Your task to perform on an android device: add a contact Image 0: 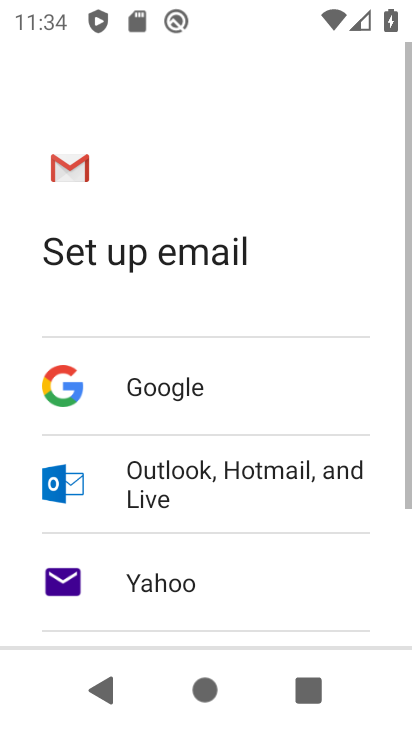
Step 0: press home button
Your task to perform on an android device: add a contact Image 1: 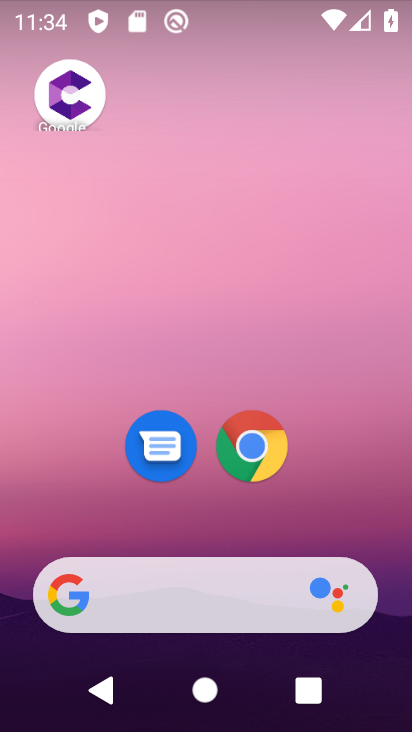
Step 1: drag from (308, 543) to (298, 126)
Your task to perform on an android device: add a contact Image 2: 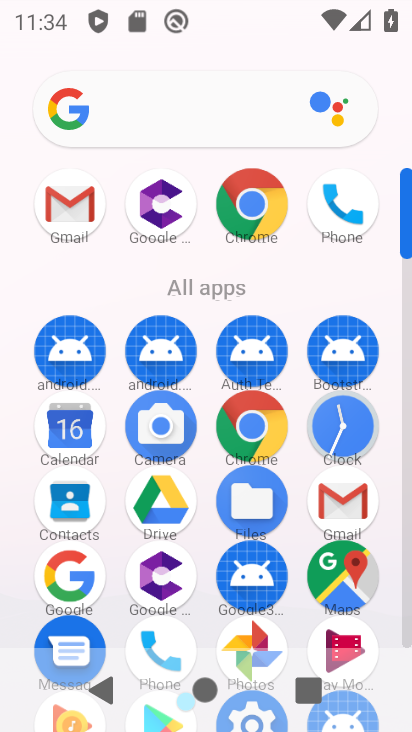
Step 2: drag from (230, 584) to (227, 287)
Your task to perform on an android device: add a contact Image 3: 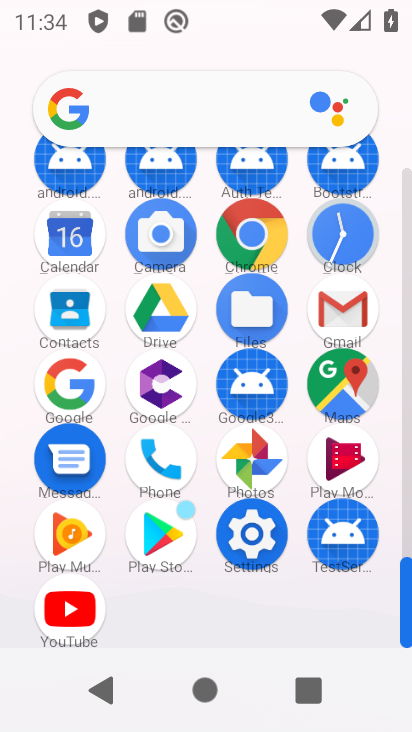
Step 3: click (150, 452)
Your task to perform on an android device: add a contact Image 4: 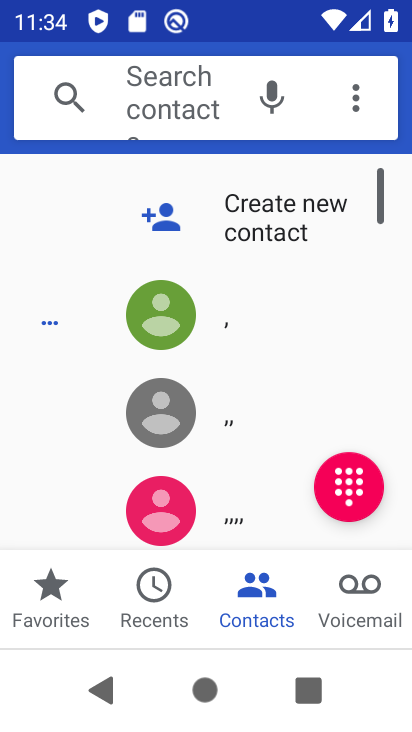
Step 4: click (253, 212)
Your task to perform on an android device: add a contact Image 5: 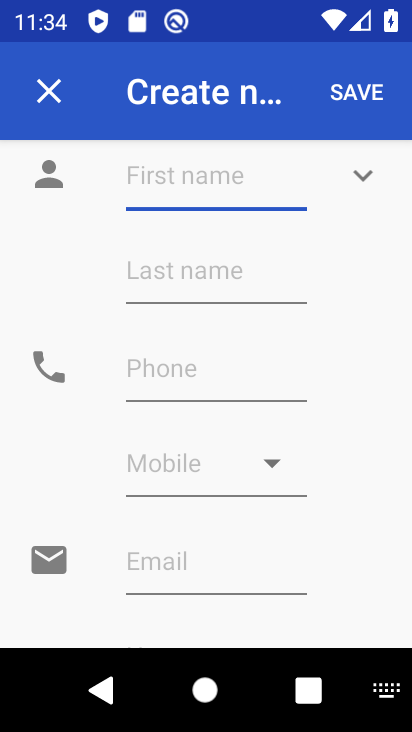
Step 5: click (152, 178)
Your task to perform on an android device: add a contact Image 6: 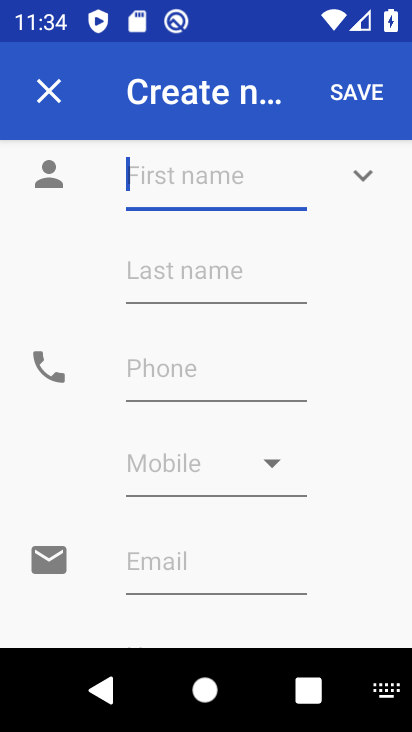
Step 6: type "okokkokokoko"
Your task to perform on an android device: add a contact Image 7: 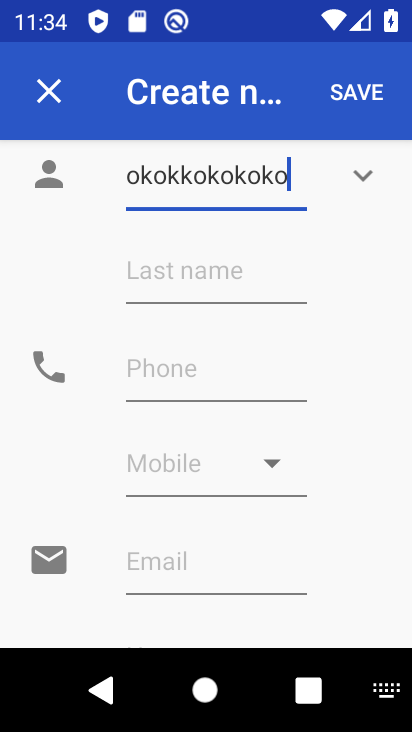
Step 7: click (149, 377)
Your task to perform on an android device: add a contact Image 8: 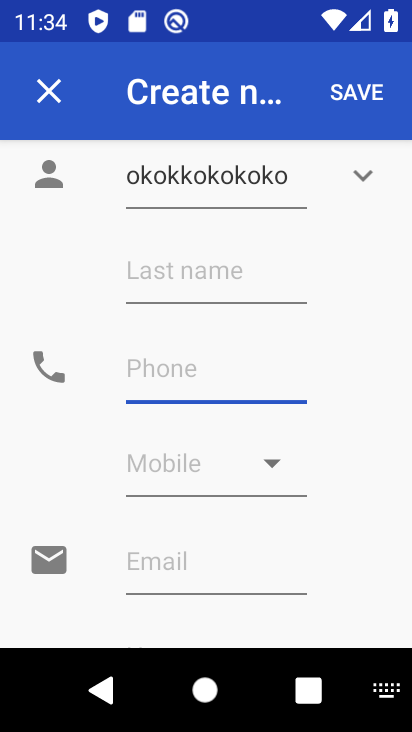
Step 8: type "00000009876544433"
Your task to perform on an android device: add a contact Image 9: 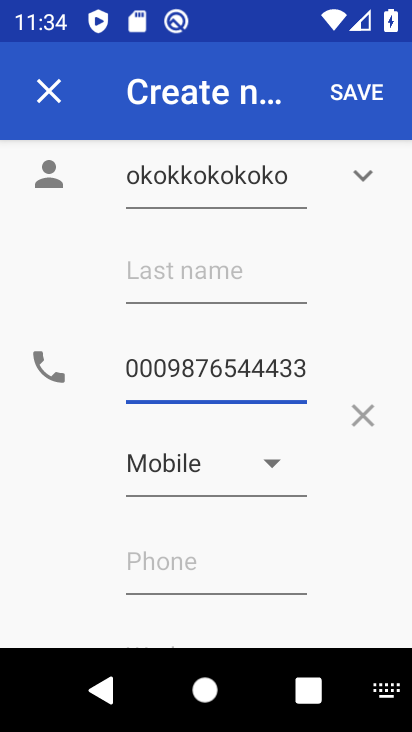
Step 9: click (352, 87)
Your task to perform on an android device: add a contact Image 10: 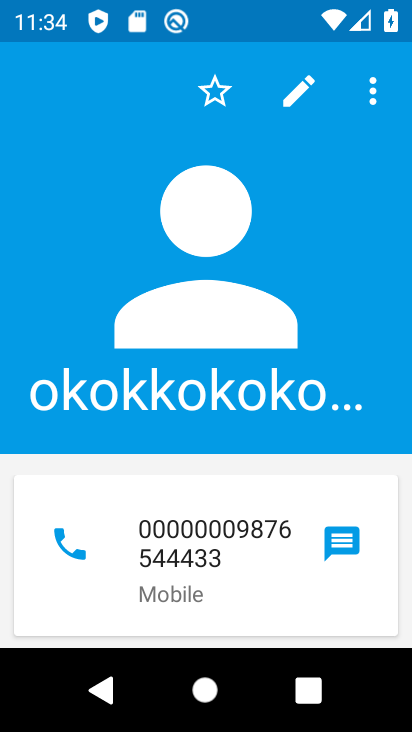
Step 10: task complete